Your task to perform on an android device: Open settings Image 0: 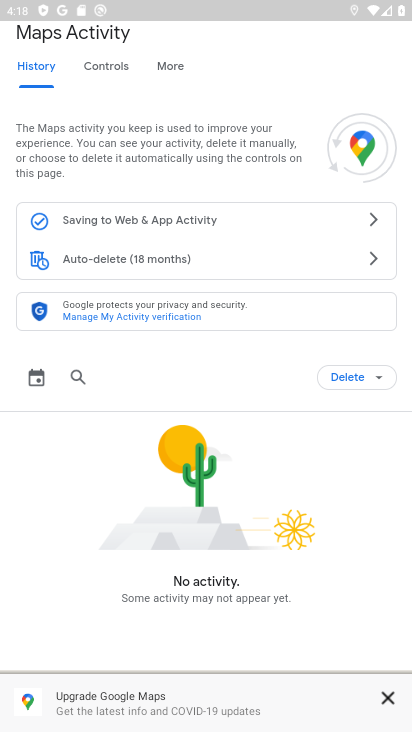
Step 0: press home button
Your task to perform on an android device: Open settings Image 1: 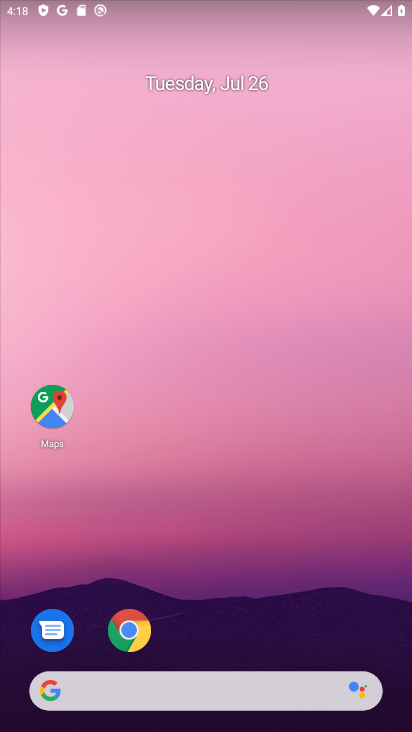
Step 1: drag from (318, 606) to (311, 172)
Your task to perform on an android device: Open settings Image 2: 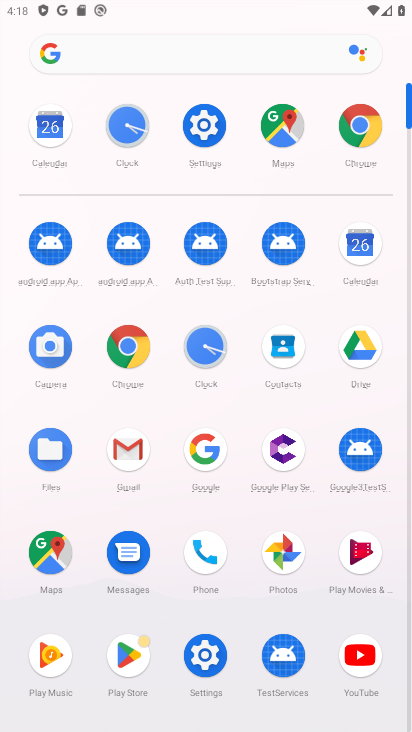
Step 2: click (214, 131)
Your task to perform on an android device: Open settings Image 3: 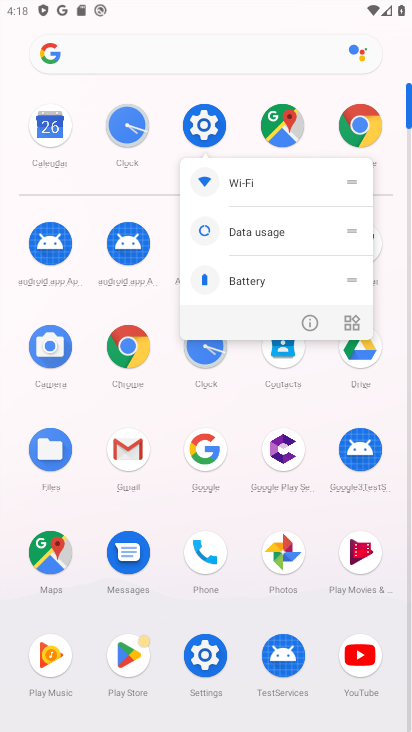
Step 3: click (198, 120)
Your task to perform on an android device: Open settings Image 4: 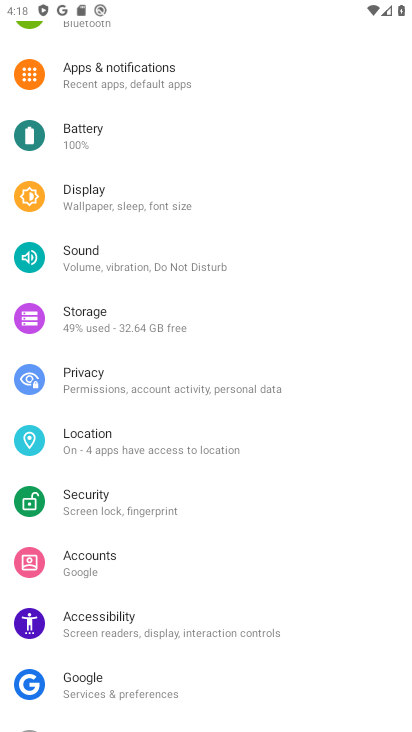
Step 4: task complete